Your task to perform on an android device: turn off data saver in the chrome app Image 0: 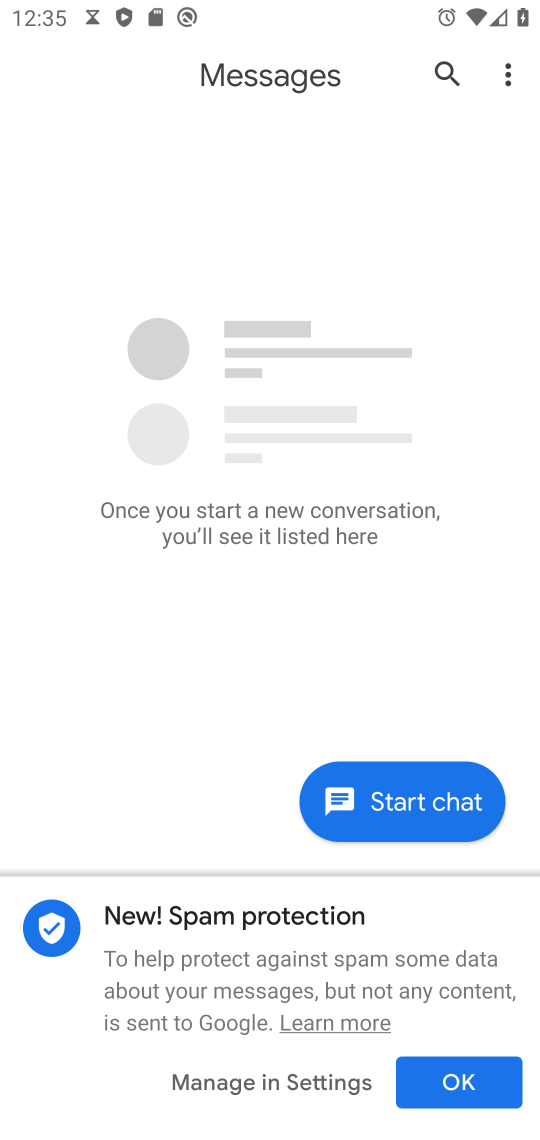
Step 0: click (336, 670)
Your task to perform on an android device: turn off data saver in the chrome app Image 1: 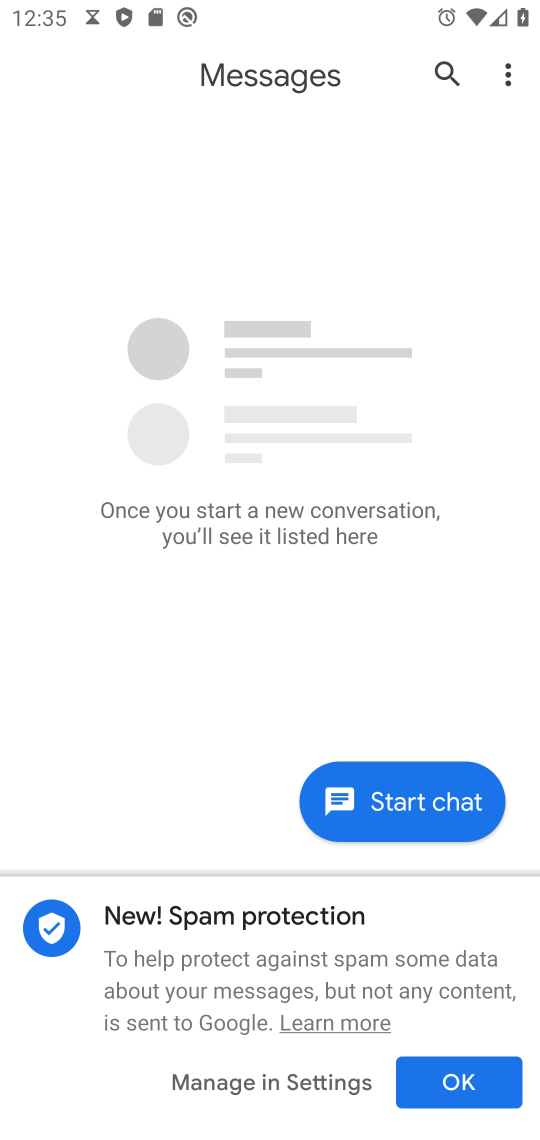
Step 1: press home button
Your task to perform on an android device: turn off data saver in the chrome app Image 2: 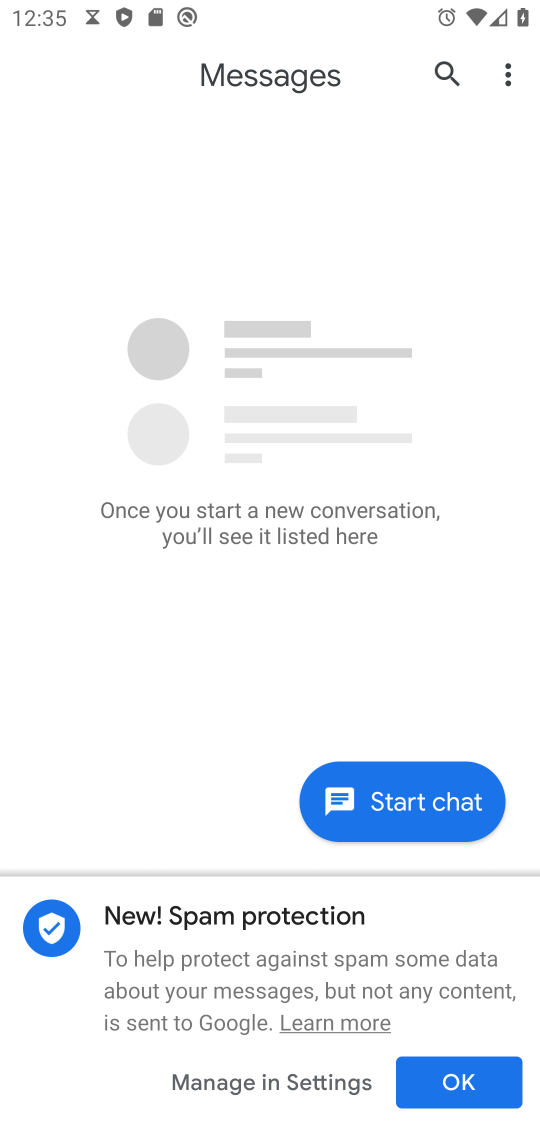
Step 2: press home button
Your task to perform on an android device: turn off data saver in the chrome app Image 3: 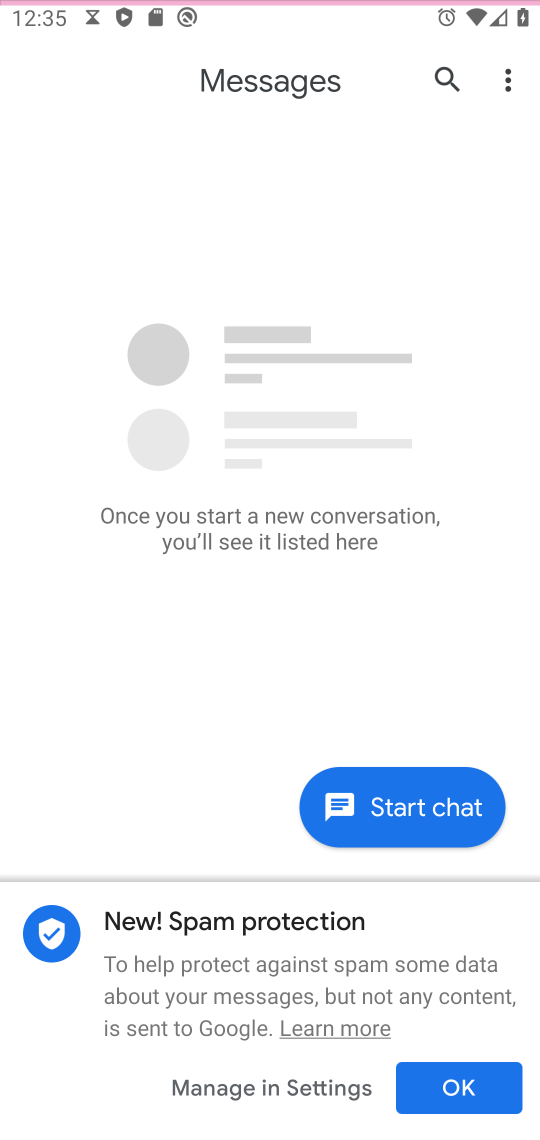
Step 3: drag from (273, 940) to (264, 429)
Your task to perform on an android device: turn off data saver in the chrome app Image 4: 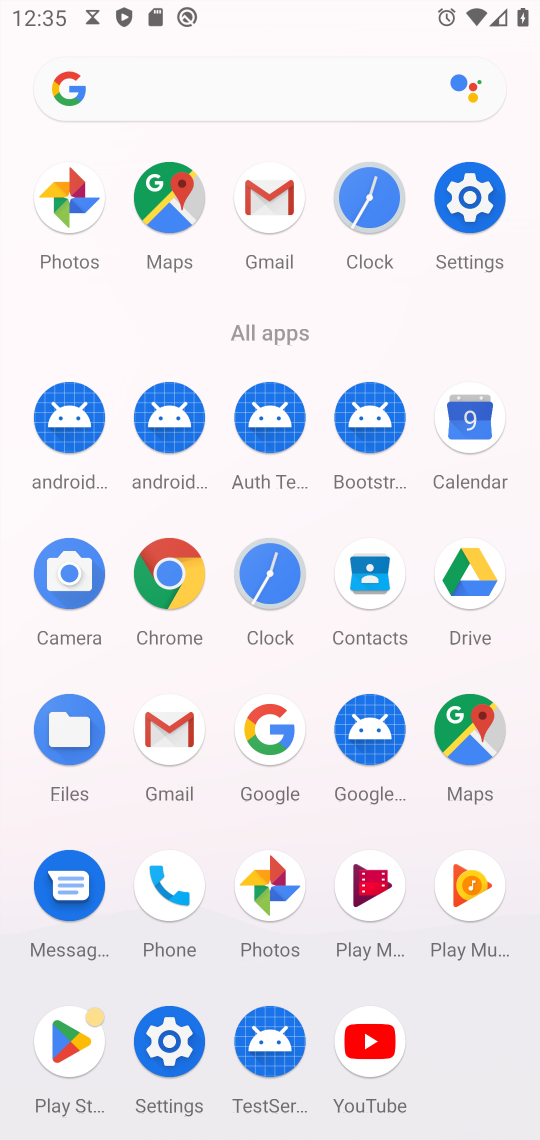
Step 4: click (440, 265)
Your task to perform on an android device: turn off data saver in the chrome app Image 5: 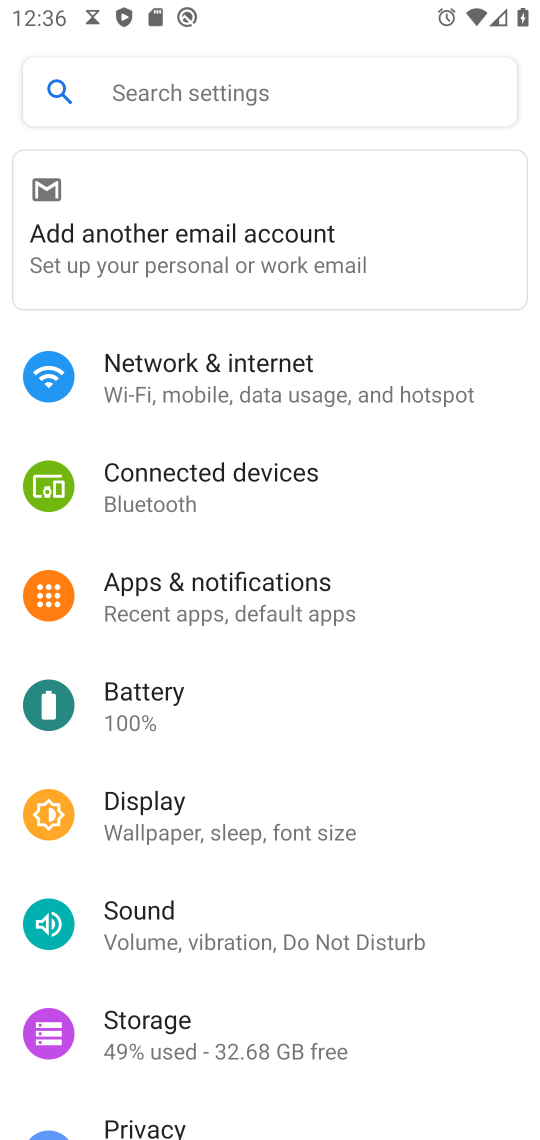
Step 5: drag from (322, 1011) to (275, 545)
Your task to perform on an android device: turn off data saver in the chrome app Image 6: 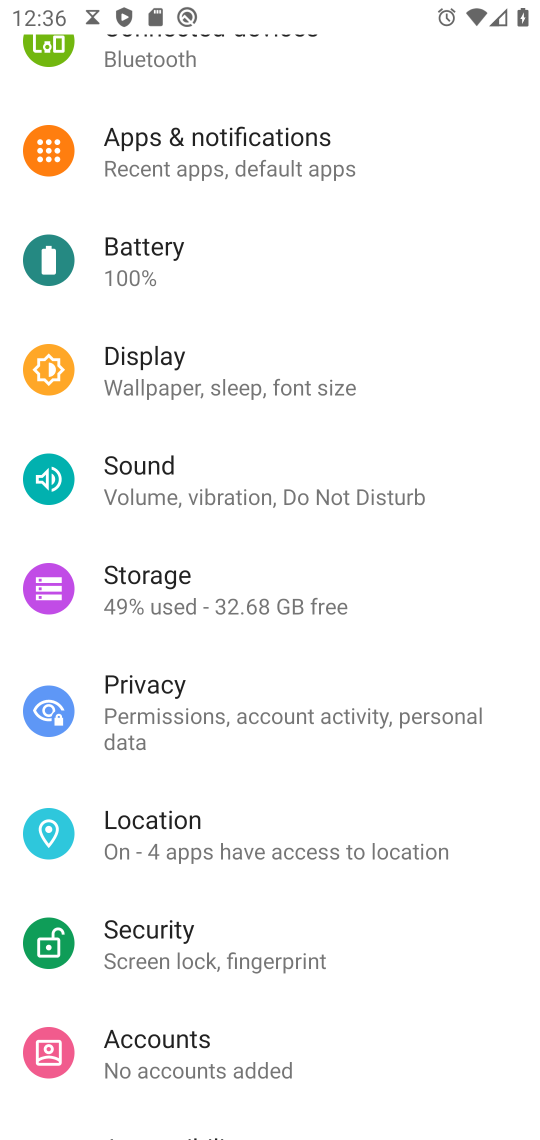
Step 6: press home button
Your task to perform on an android device: turn off data saver in the chrome app Image 7: 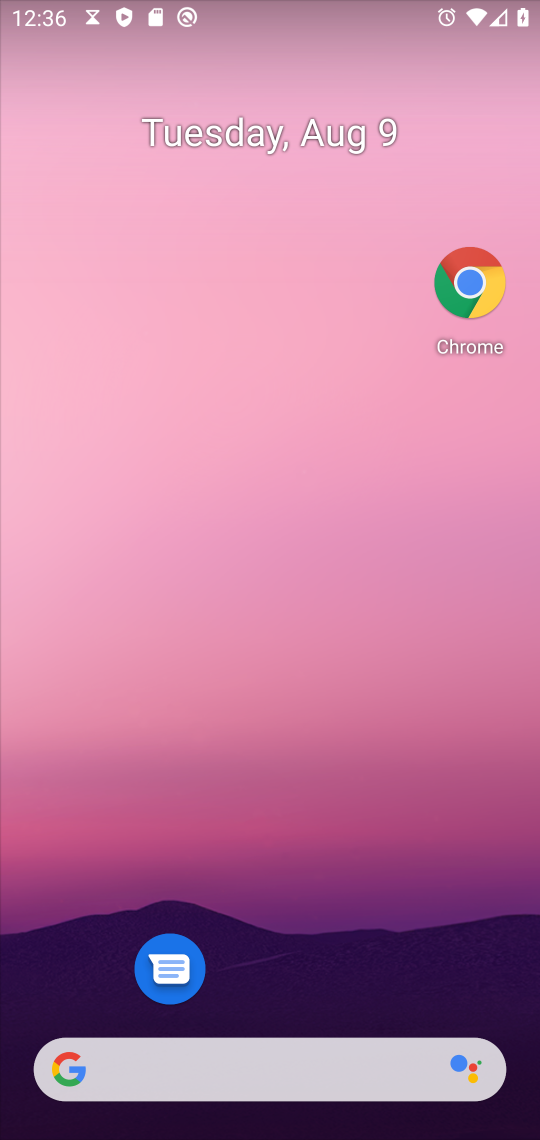
Step 7: drag from (345, 977) to (233, 18)
Your task to perform on an android device: turn off data saver in the chrome app Image 8: 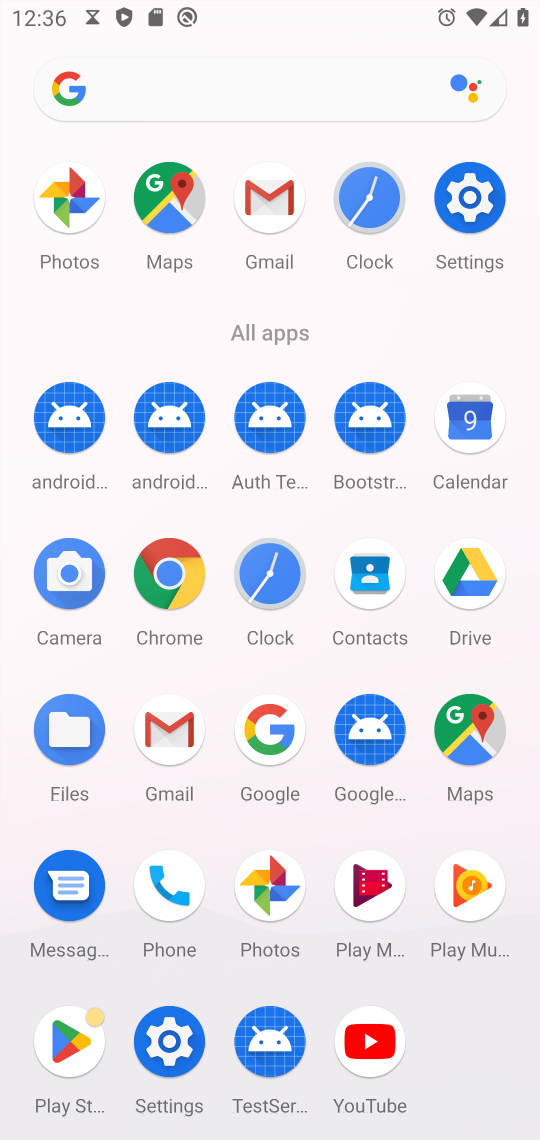
Step 8: click (172, 565)
Your task to perform on an android device: turn off data saver in the chrome app Image 9: 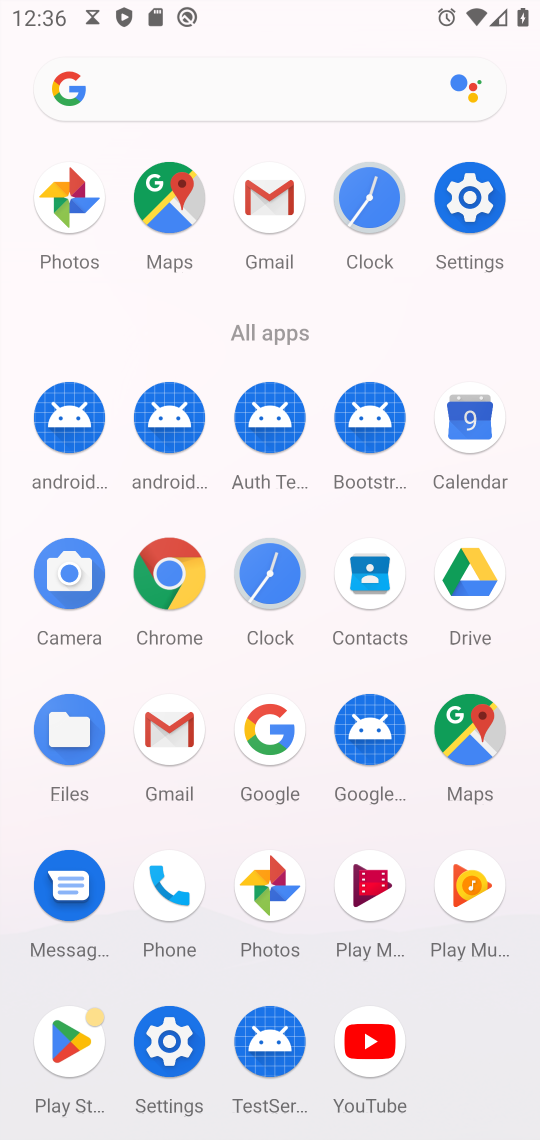
Step 9: click (172, 565)
Your task to perform on an android device: turn off data saver in the chrome app Image 10: 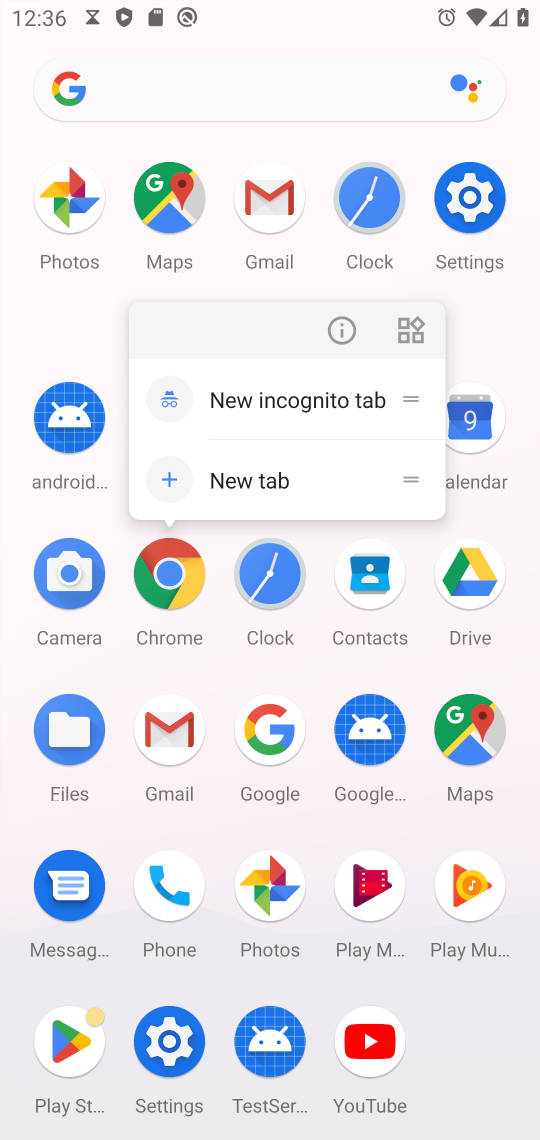
Step 10: click (172, 565)
Your task to perform on an android device: turn off data saver in the chrome app Image 11: 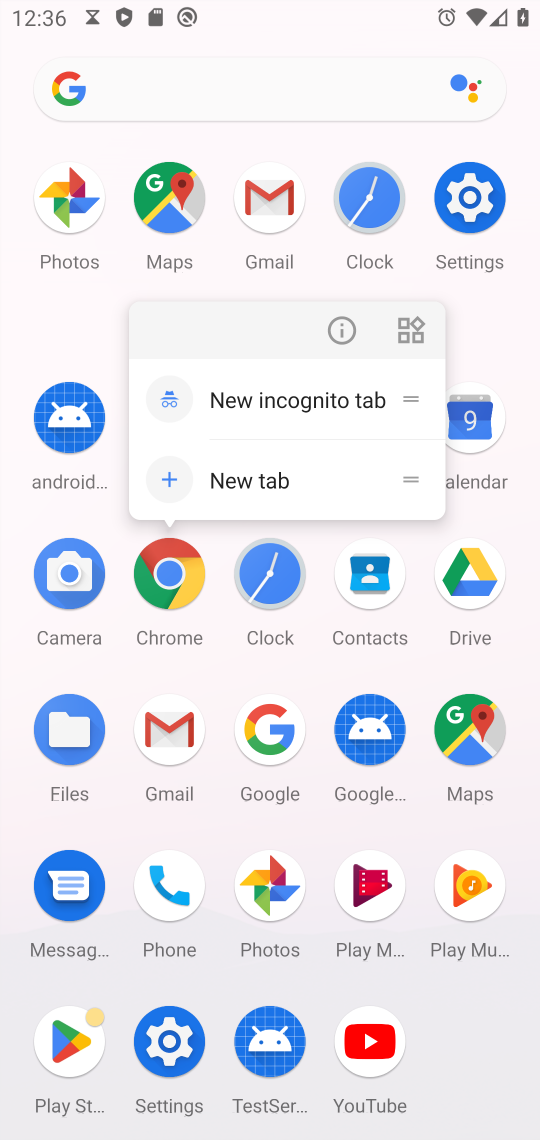
Step 11: click (172, 565)
Your task to perform on an android device: turn off data saver in the chrome app Image 12: 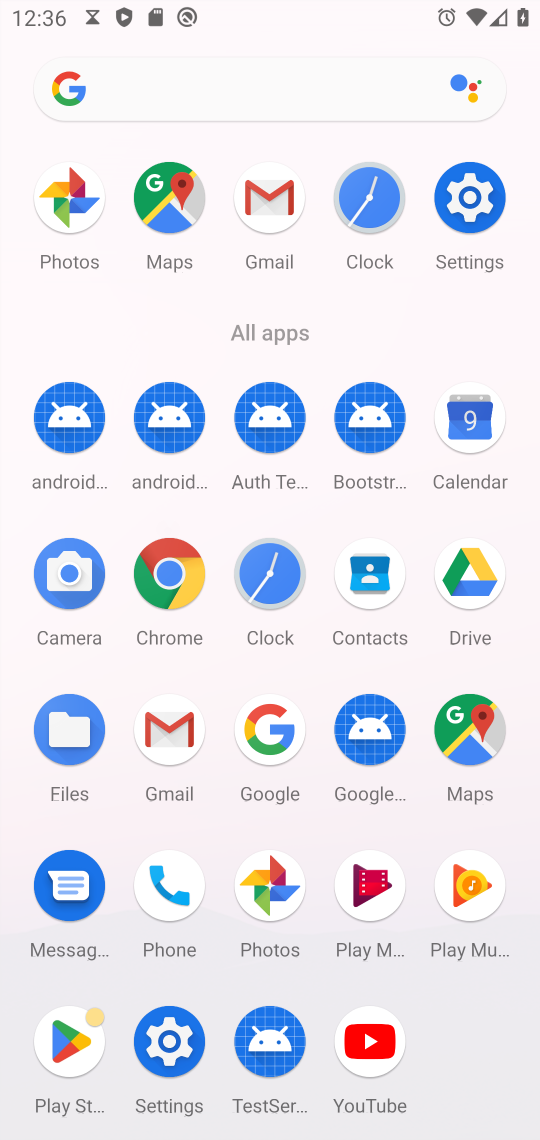
Step 12: click (172, 565)
Your task to perform on an android device: turn off data saver in the chrome app Image 13: 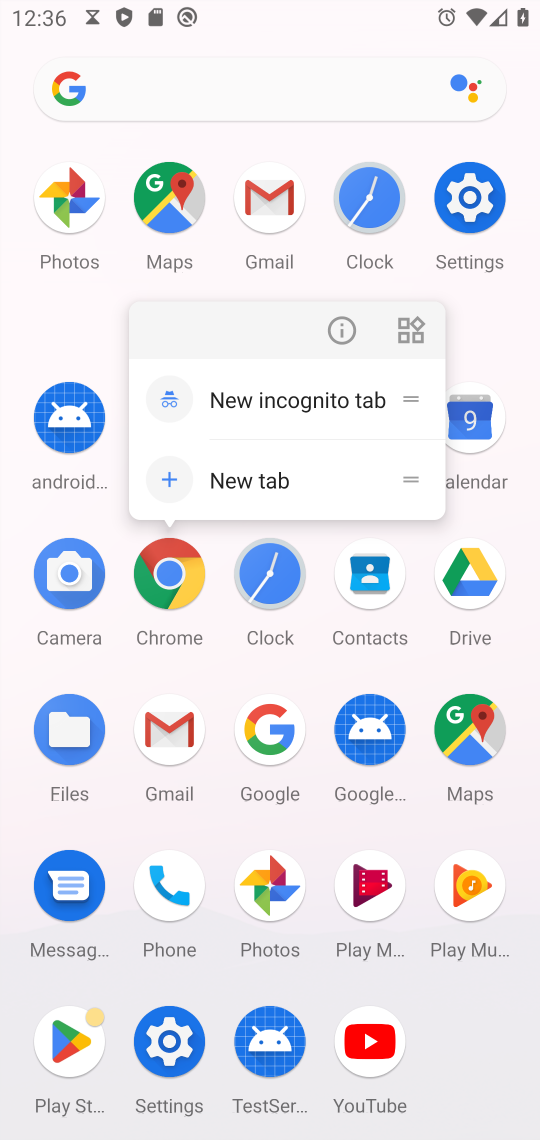
Step 13: click (325, 324)
Your task to perform on an android device: turn off data saver in the chrome app Image 14: 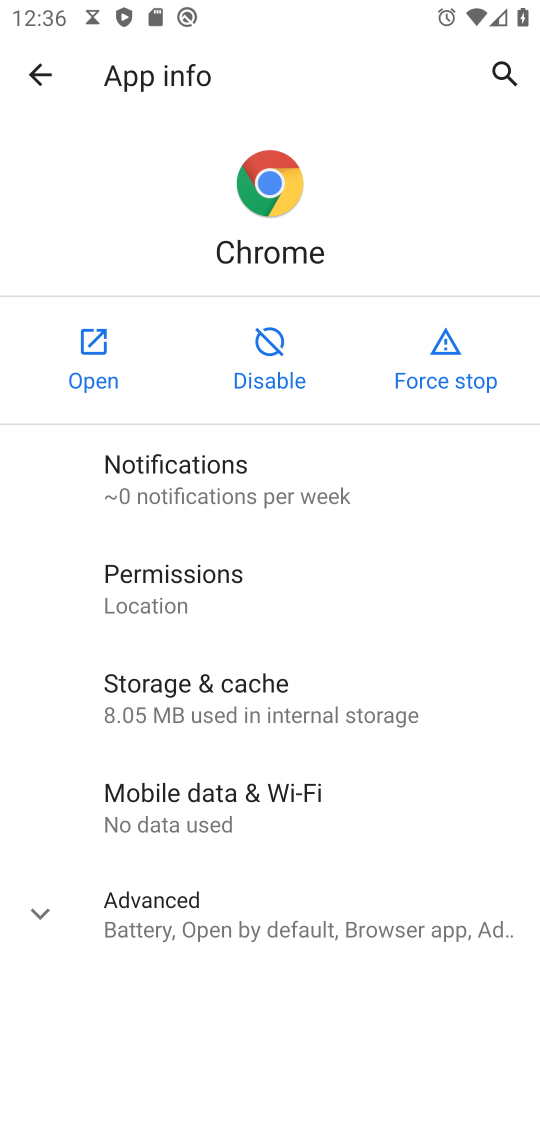
Step 14: click (73, 365)
Your task to perform on an android device: turn off data saver in the chrome app Image 15: 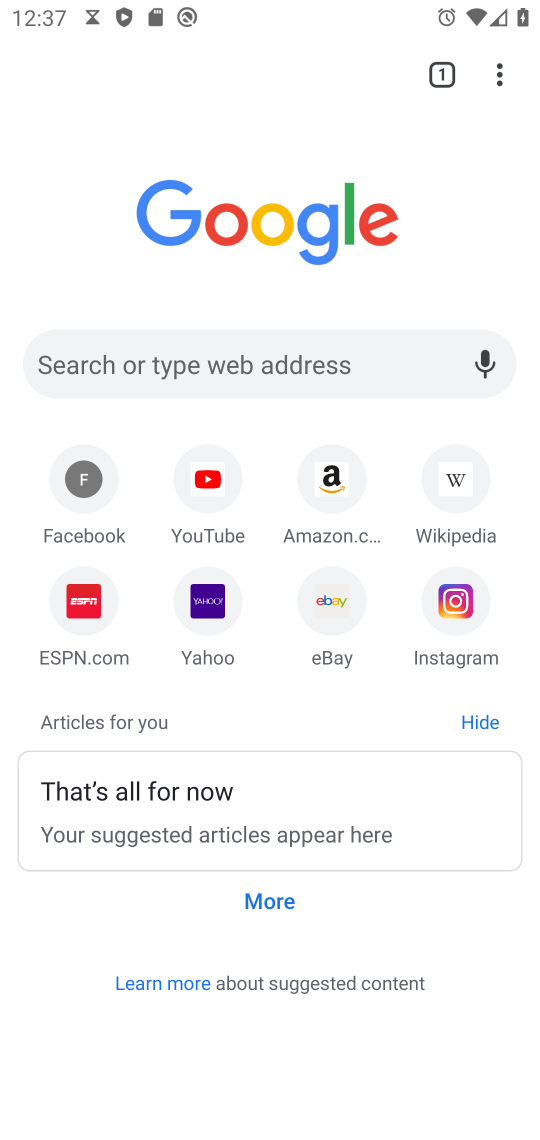
Step 15: drag from (497, 62) to (270, 636)
Your task to perform on an android device: turn off data saver in the chrome app Image 16: 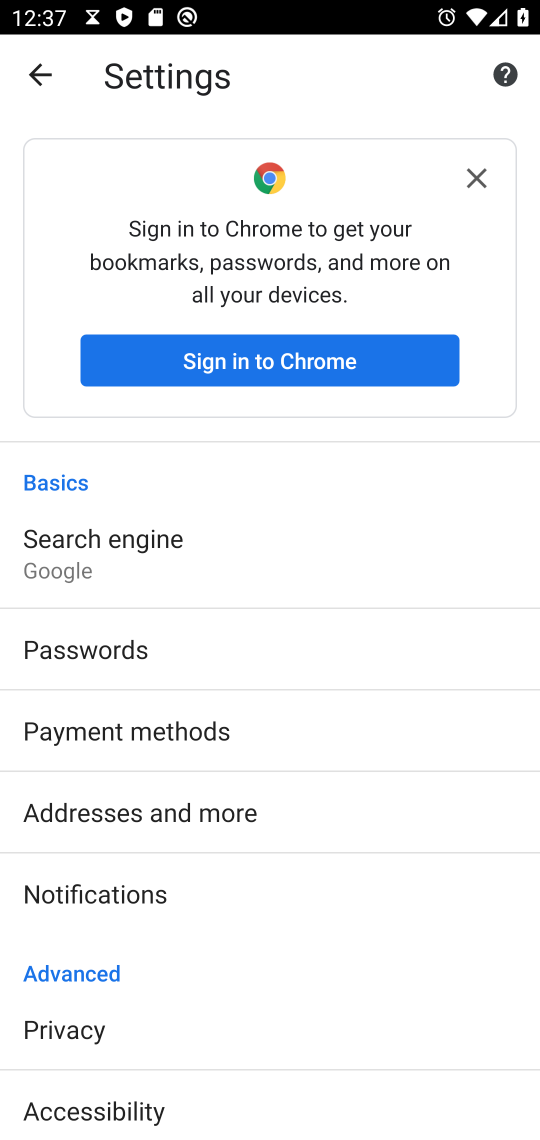
Step 16: drag from (206, 907) to (364, 233)
Your task to perform on an android device: turn off data saver in the chrome app Image 17: 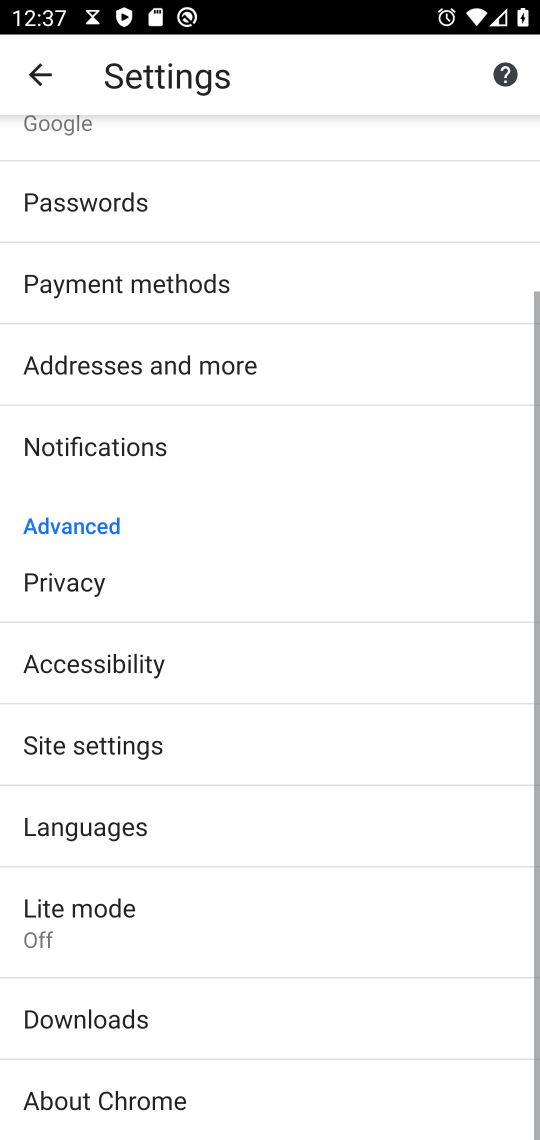
Step 17: drag from (274, 835) to (366, 300)
Your task to perform on an android device: turn off data saver in the chrome app Image 18: 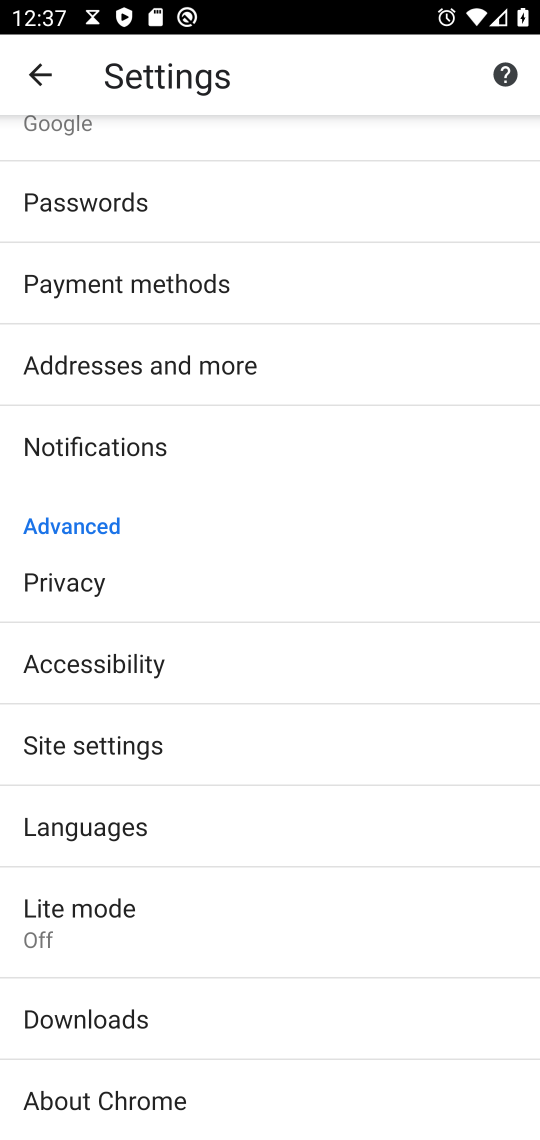
Step 18: click (164, 917)
Your task to perform on an android device: turn off data saver in the chrome app Image 19: 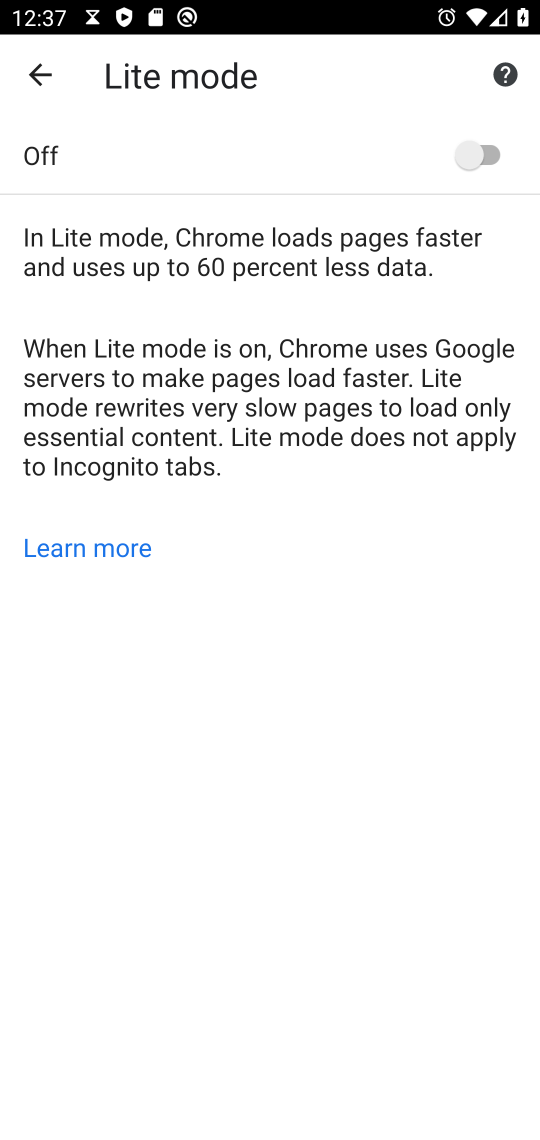
Step 19: task complete